Your task to perform on an android device: Go to calendar. Show me events next week Image 0: 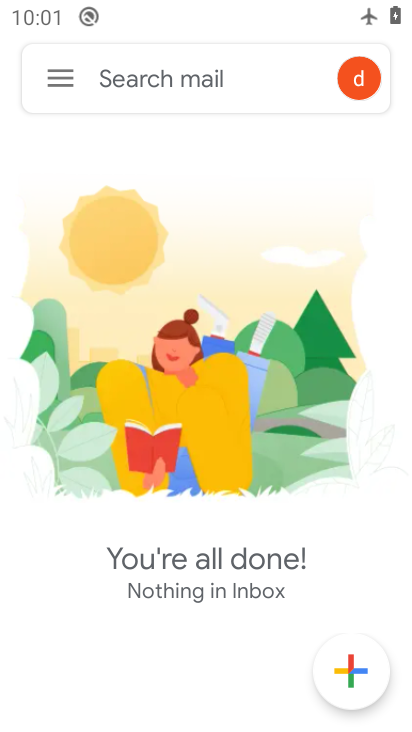
Step 0: press back button
Your task to perform on an android device: Go to calendar. Show me events next week Image 1: 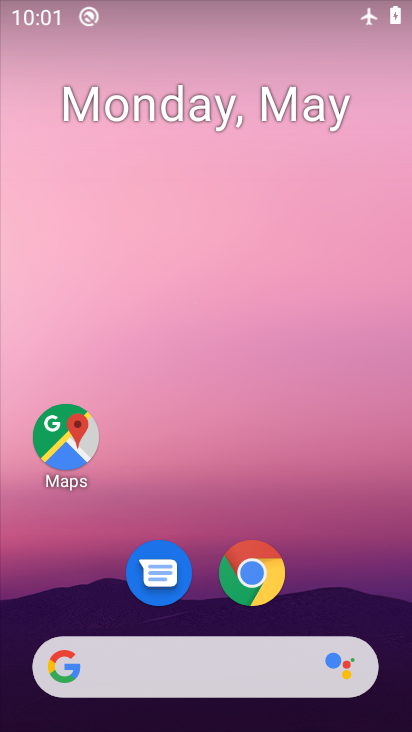
Step 1: drag from (283, 447) to (277, 57)
Your task to perform on an android device: Go to calendar. Show me events next week Image 2: 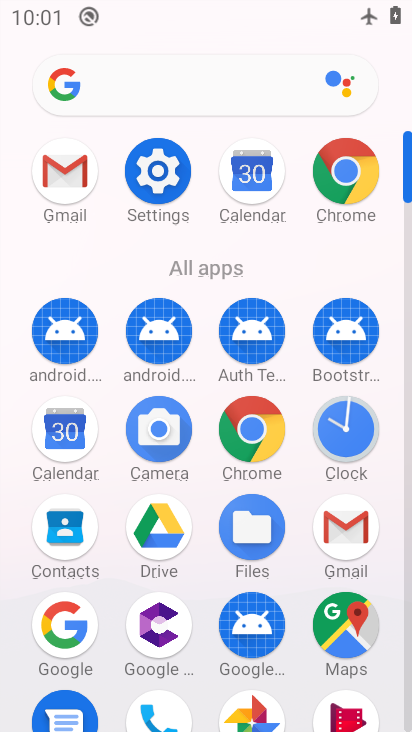
Step 2: click (57, 436)
Your task to perform on an android device: Go to calendar. Show me events next week Image 3: 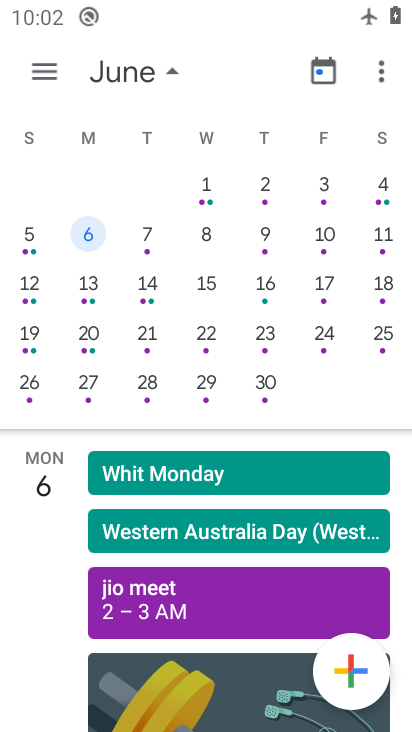
Step 3: click (207, 183)
Your task to perform on an android device: Go to calendar. Show me events next week Image 4: 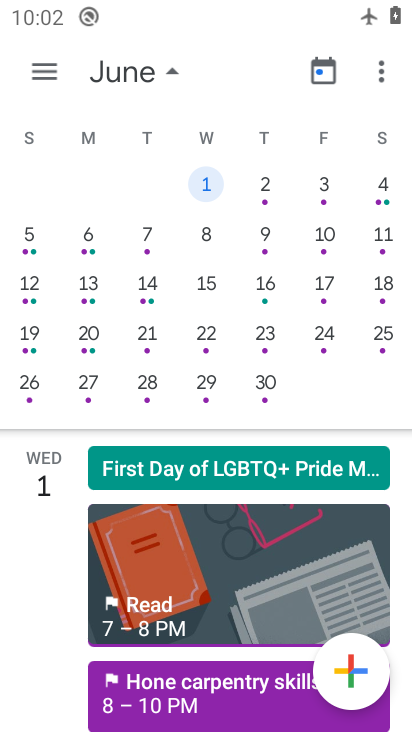
Step 4: click (90, 232)
Your task to perform on an android device: Go to calendar. Show me events next week Image 5: 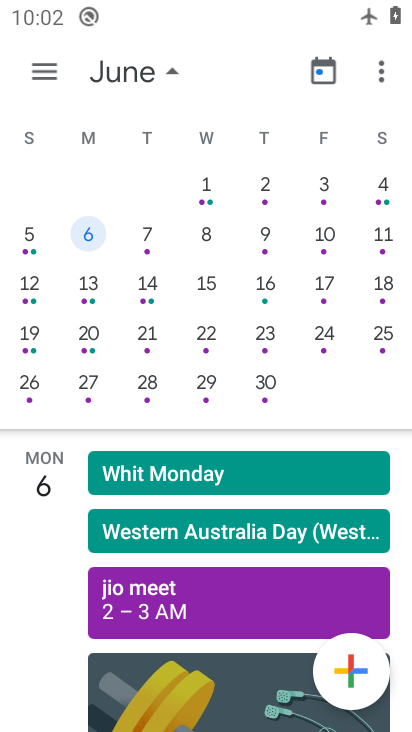
Step 5: drag from (216, 594) to (266, 243)
Your task to perform on an android device: Go to calendar. Show me events next week Image 6: 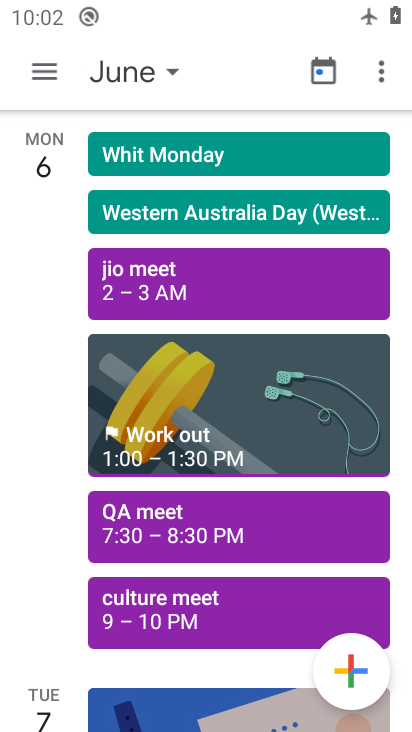
Step 6: click (154, 148)
Your task to perform on an android device: Go to calendar. Show me events next week Image 7: 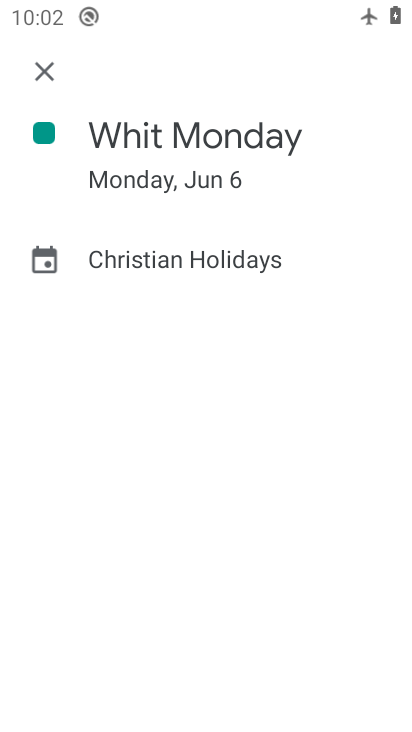
Step 7: task complete